Your task to perform on an android device: Open notification settings Image 0: 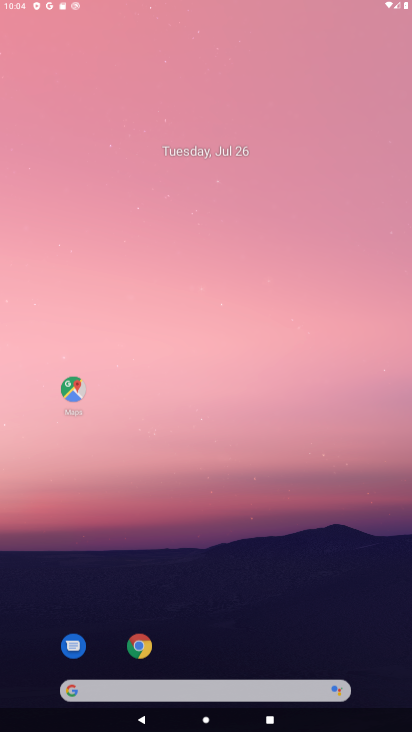
Step 0: drag from (161, 673) to (161, 352)
Your task to perform on an android device: Open notification settings Image 1: 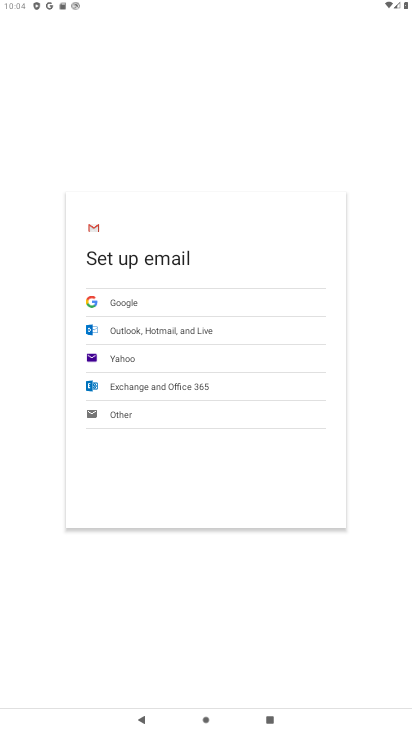
Step 1: press home button
Your task to perform on an android device: Open notification settings Image 2: 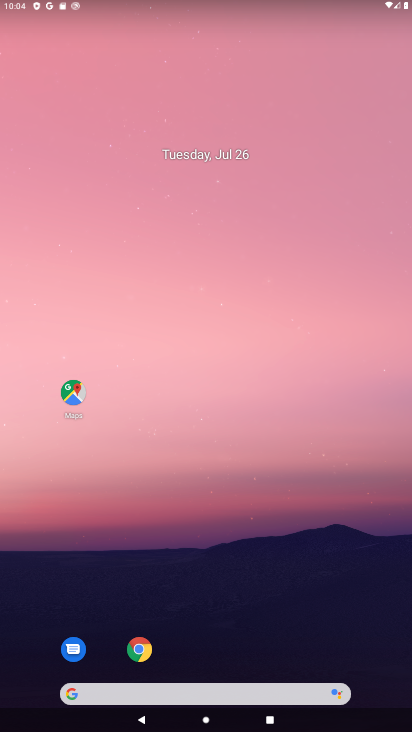
Step 2: drag from (199, 667) to (199, 220)
Your task to perform on an android device: Open notification settings Image 3: 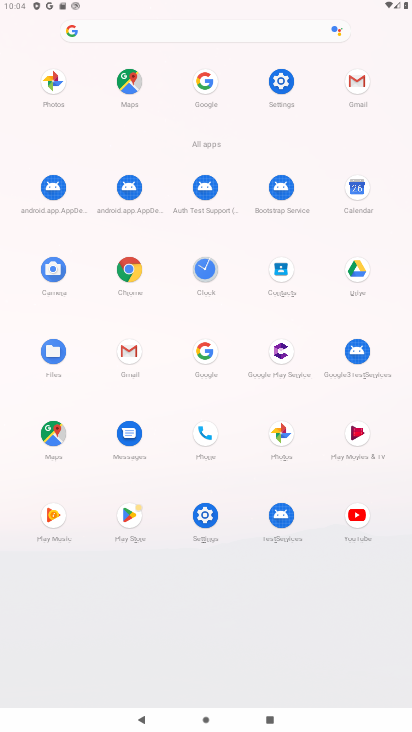
Step 3: click (286, 93)
Your task to perform on an android device: Open notification settings Image 4: 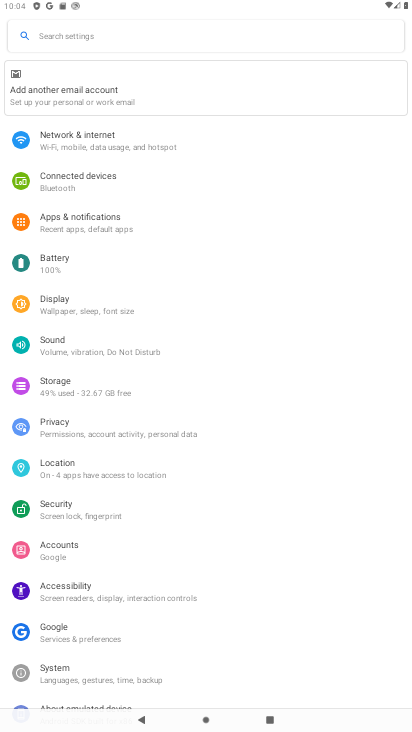
Step 4: click (104, 216)
Your task to perform on an android device: Open notification settings Image 5: 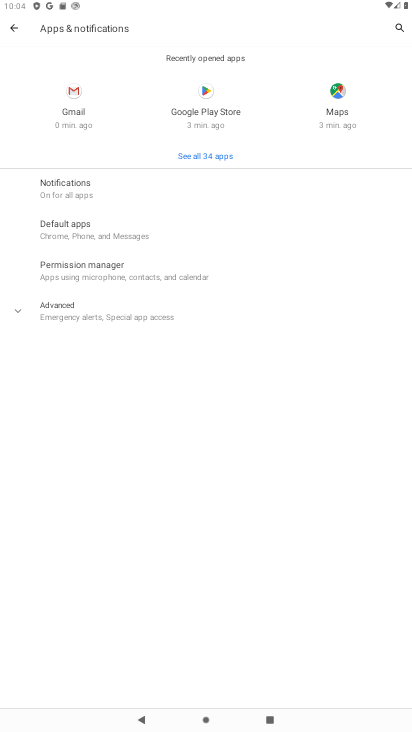
Step 5: click (74, 303)
Your task to perform on an android device: Open notification settings Image 6: 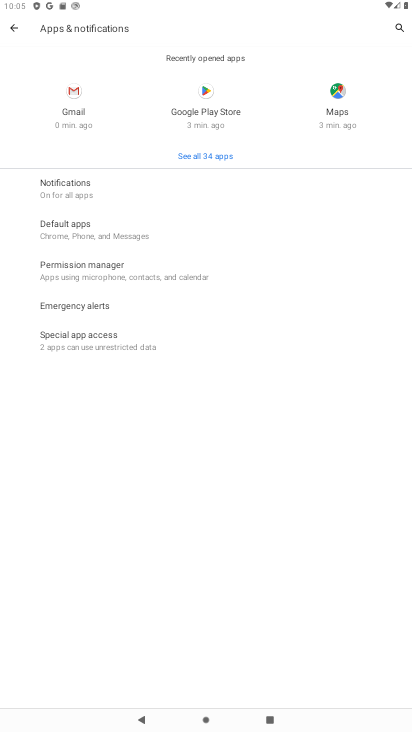
Step 6: task complete